Your task to perform on an android device: Do I have any events today? Image 0: 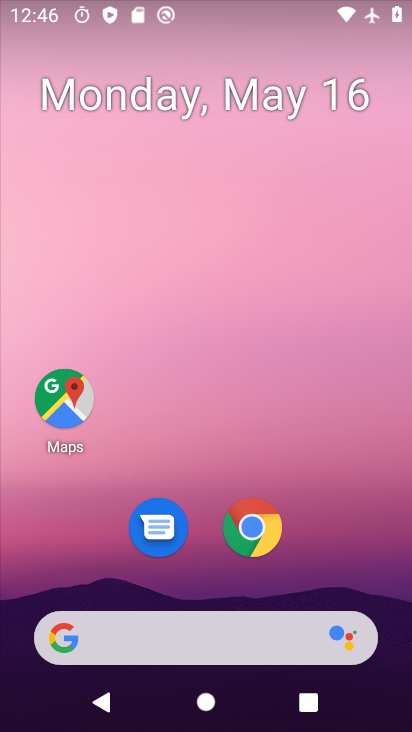
Step 0: press home button
Your task to perform on an android device: Do I have any events today? Image 1: 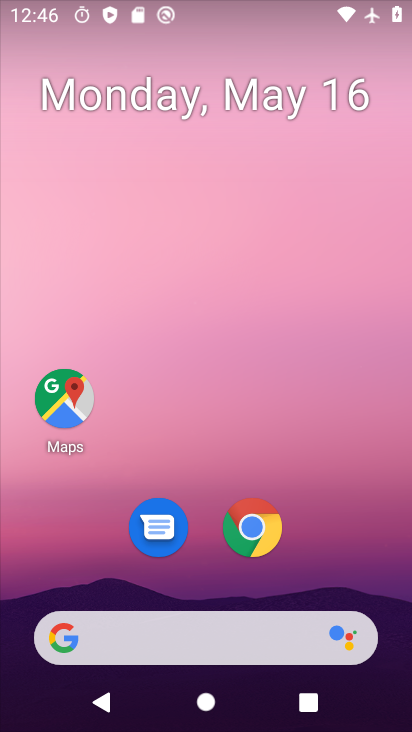
Step 1: drag from (212, 642) to (338, 134)
Your task to perform on an android device: Do I have any events today? Image 2: 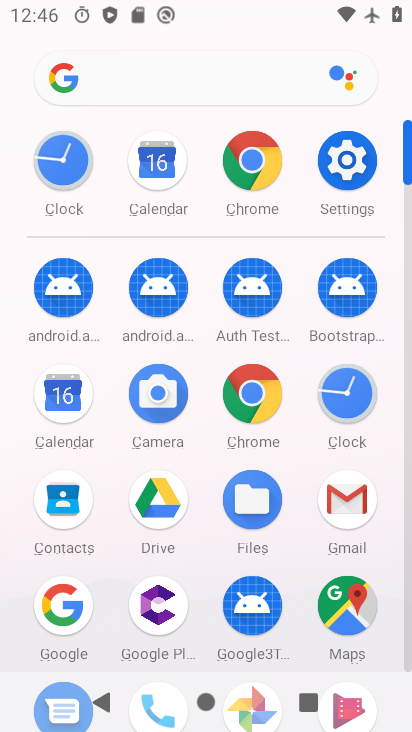
Step 2: click (74, 401)
Your task to perform on an android device: Do I have any events today? Image 3: 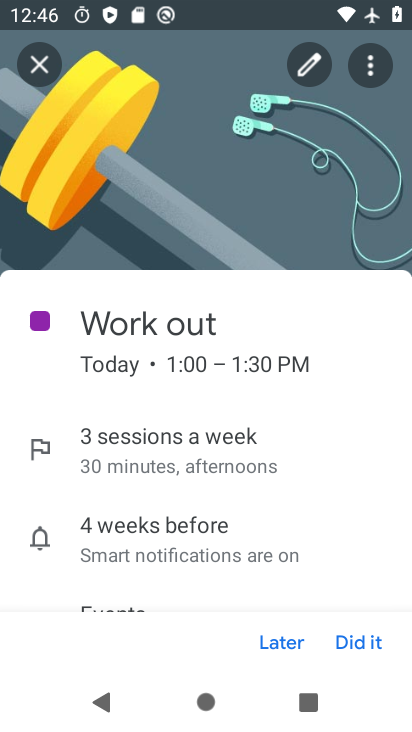
Step 3: click (44, 66)
Your task to perform on an android device: Do I have any events today? Image 4: 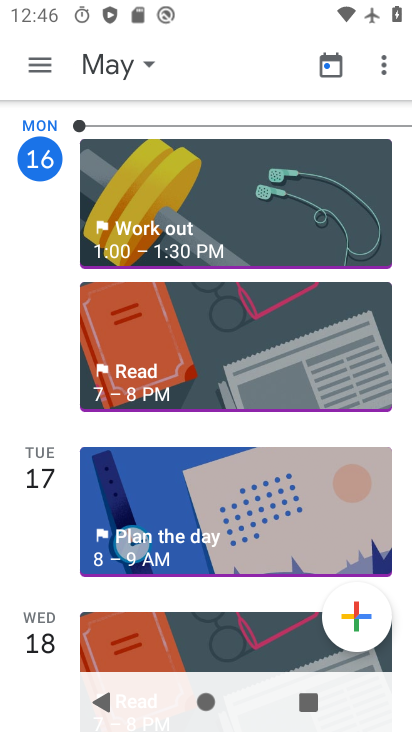
Step 4: click (140, 245)
Your task to perform on an android device: Do I have any events today? Image 5: 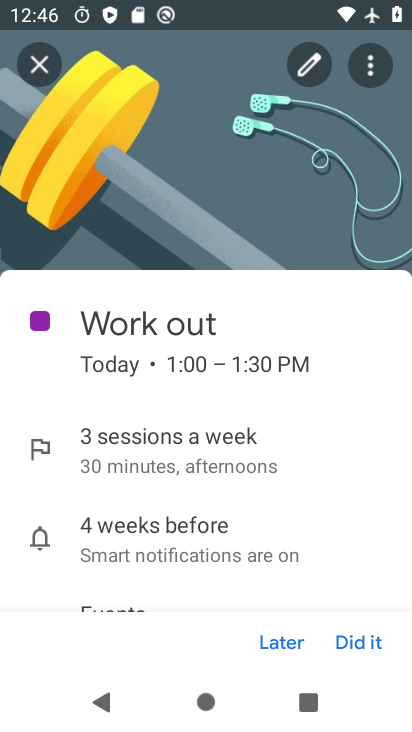
Step 5: task complete